Your task to perform on an android device: open device folders in google photos Image 0: 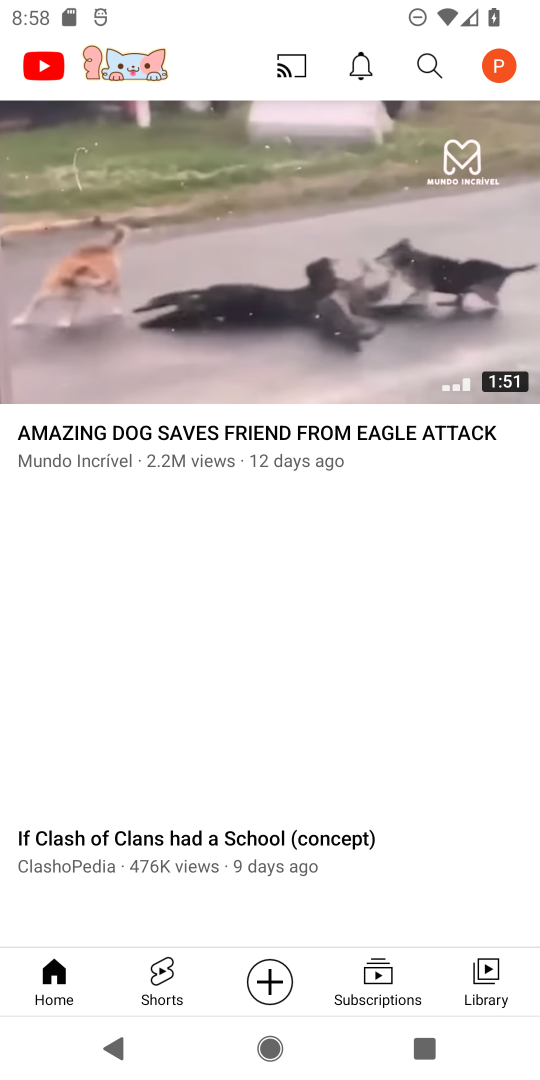
Step 0: press home button
Your task to perform on an android device: open device folders in google photos Image 1: 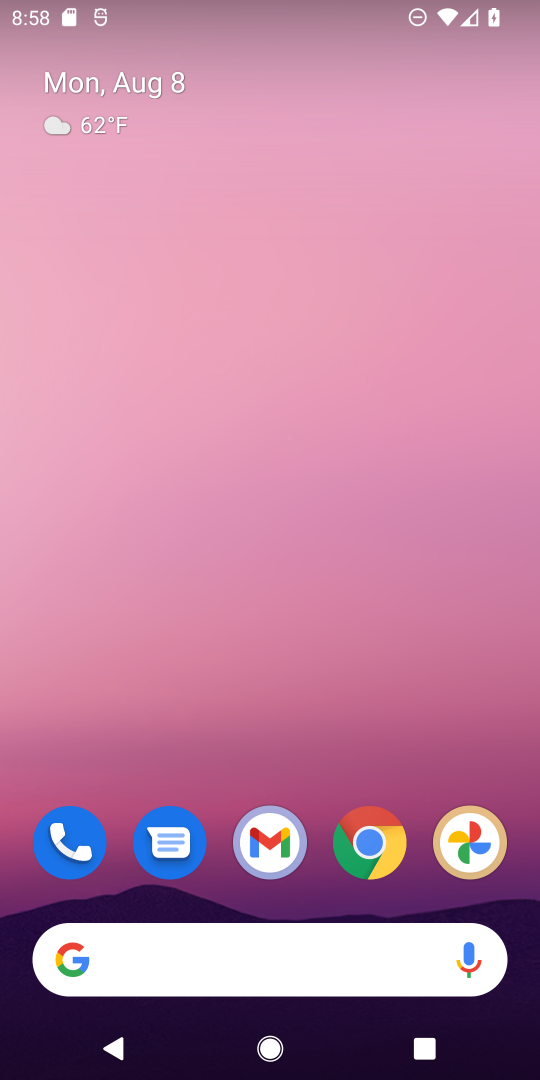
Step 1: click (297, 750)
Your task to perform on an android device: open device folders in google photos Image 2: 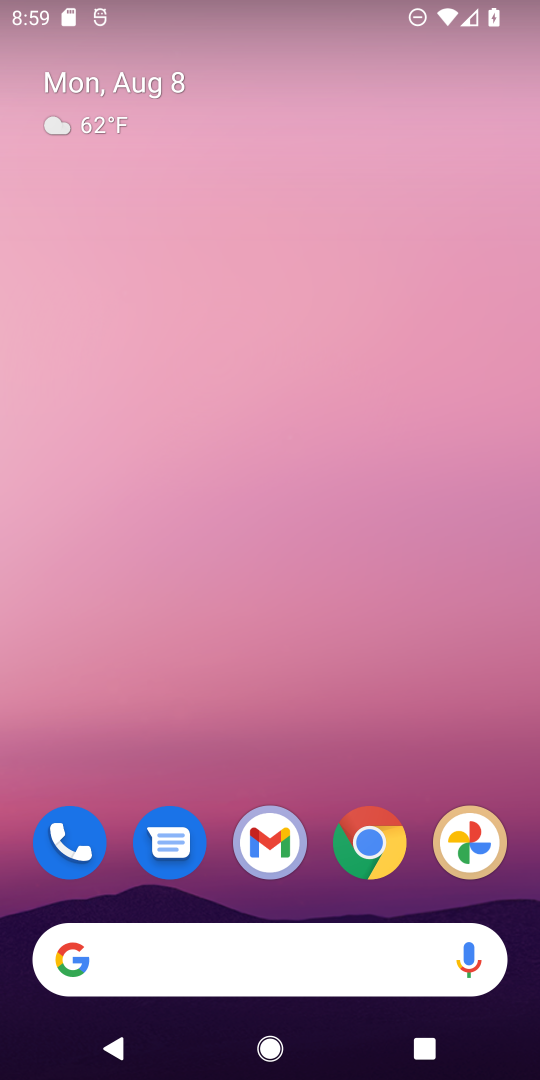
Step 2: click (466, 836)
Your task to perform on an android device: open device folders in google photos Image 3: 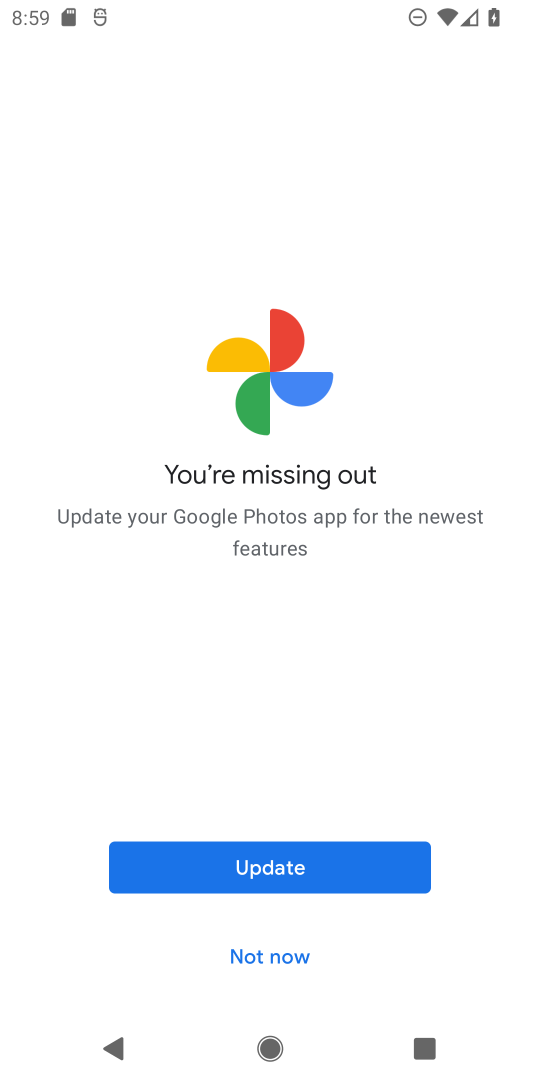
Step 3: click (295, 955)
Your task to perform on an android device: open device folders in google photos Image 4: 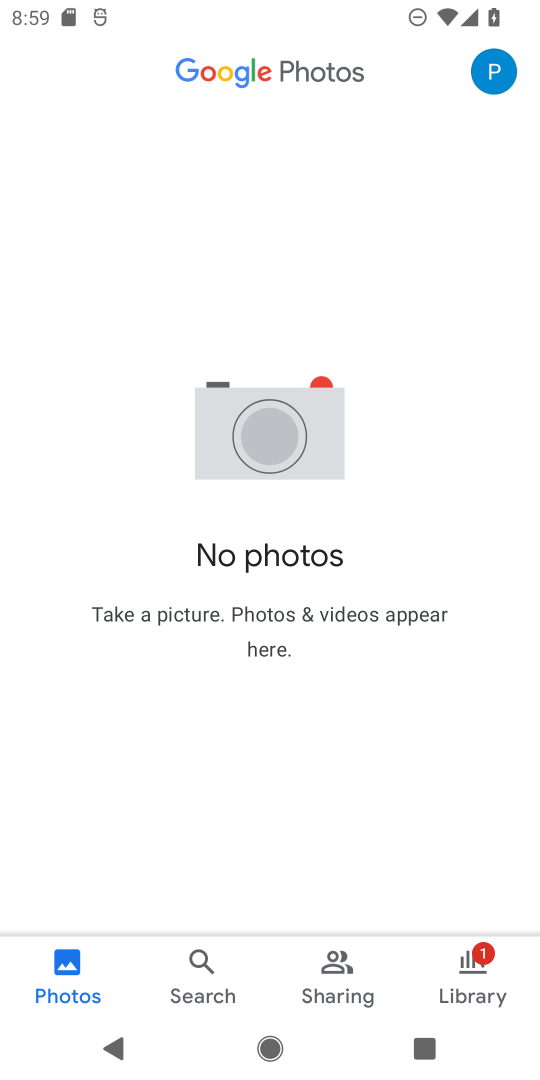
Step 4: click (200, 956)
Your task to perform on an android device: open device folders in google photos Image 5: 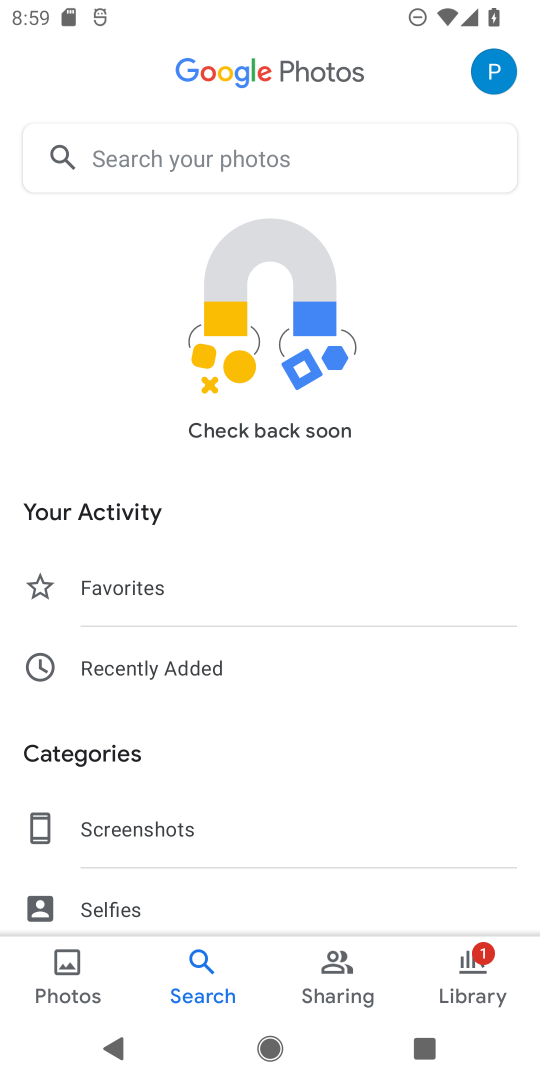
Step 5: click (278, 152)
Your task to perform on an android device: open device folders in google photos Image 6: 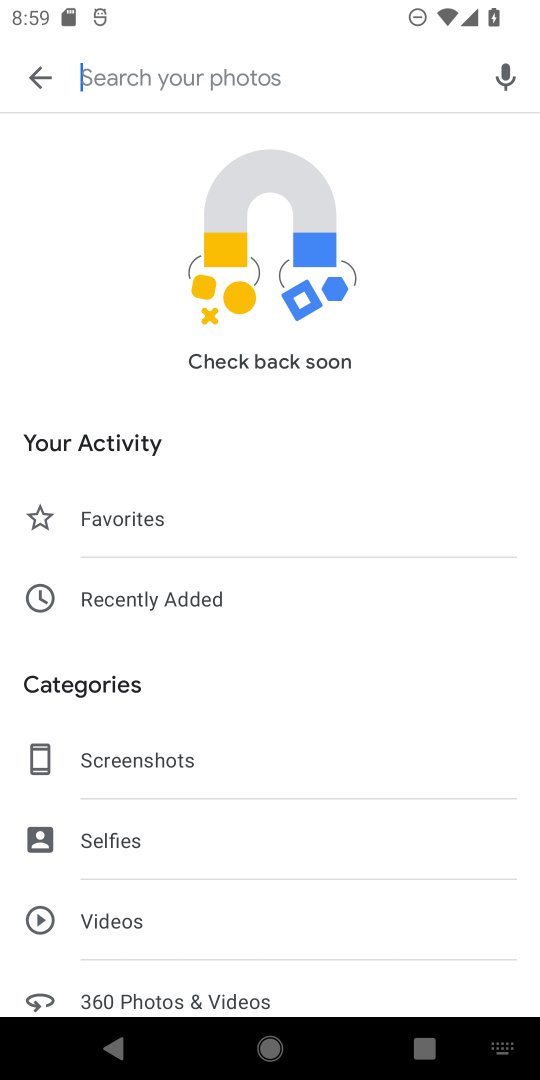
Step 6: type "device folder"
Your task to perform on an android device: open device folders in google photos Image 7: 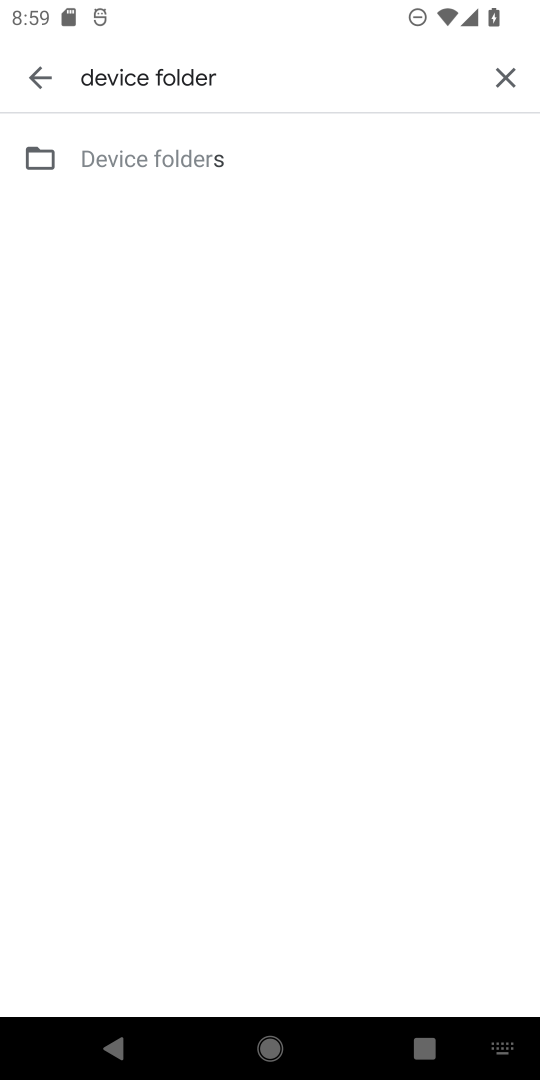
Step 7: click (228, 162)
Your task to perform on an android device: open device folders in google photos Image 8: 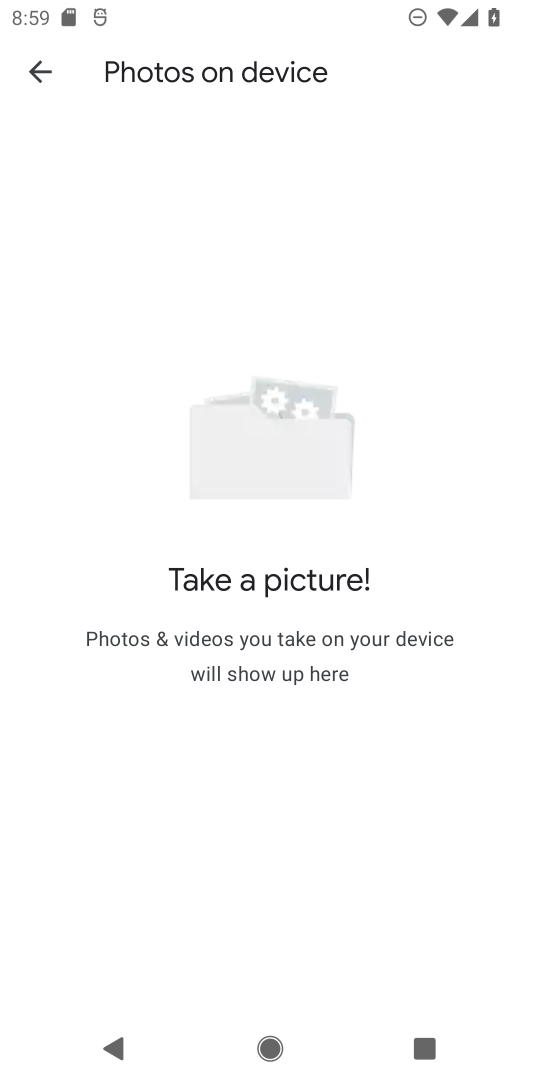
Step 8: task complete